Your task to perform on an android device: read, delete, or share a saved page in the chrome app Image 0: 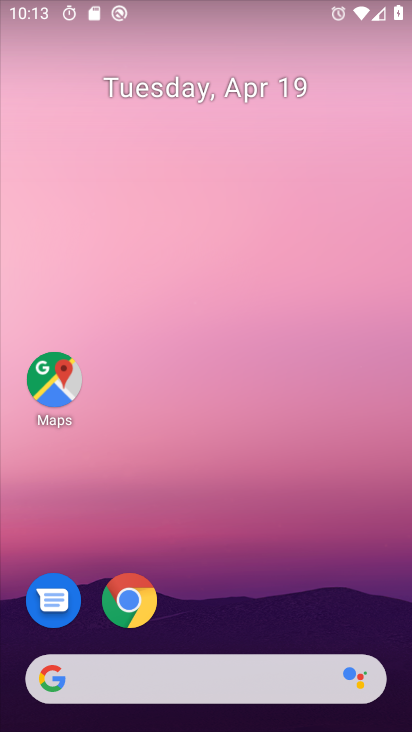
Step 0: click (130, 590)
Your task to perform on an android device: read, delete, or share a saved page in the chrome app Image 1: 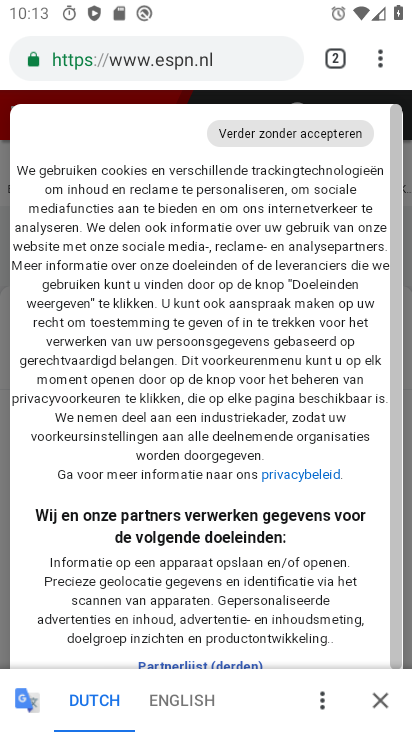
Step 1: click (384, 54)
Your task to perform on an android device: read, delete, or share a saved page in the chrome app Image 2: 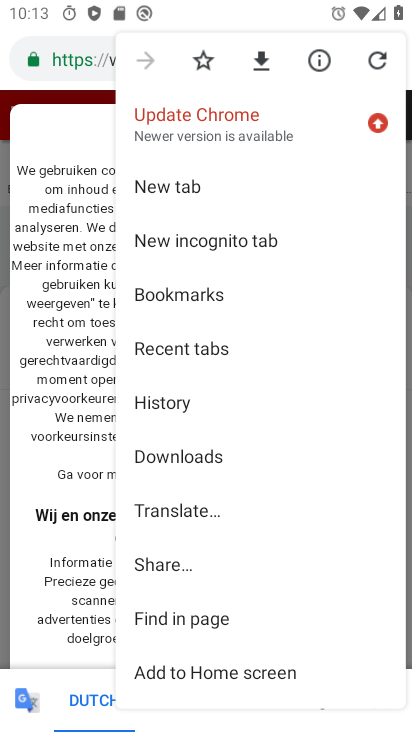
Step 2: click (200, 467)
Your task to perform on an android device: read, delete, or share a saved page in the chrome app Image 3: 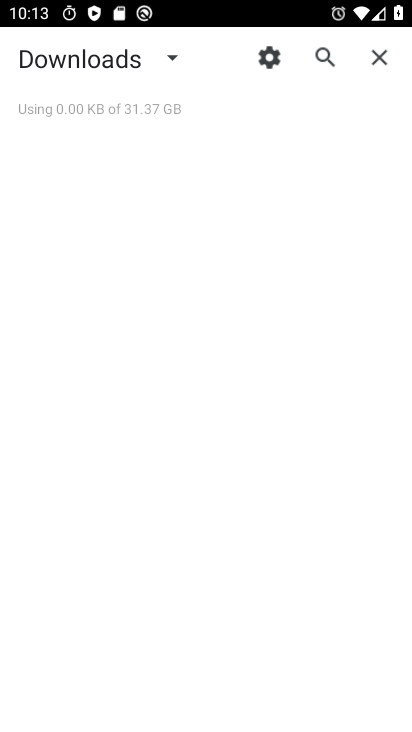
Step 3: task complete